Your task to perform on an android device: empty trash in the gmail app Image 0: 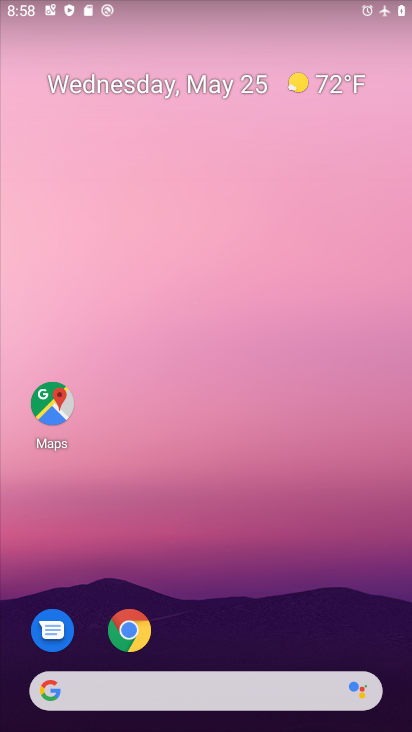
Step 0: drag from (194, 625) to (216, 170)
Your task to perform on an android device: empty trash in the gmail app Image 1: 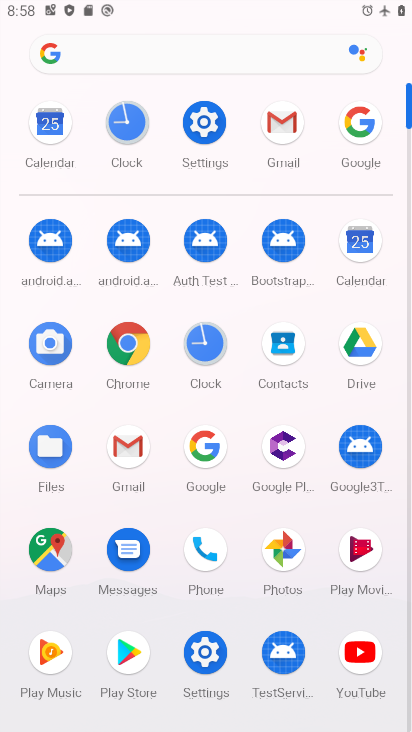
Step 1: click (293, 125)
Your task to perform on an android device: empty trash in the gmail app Image 2: 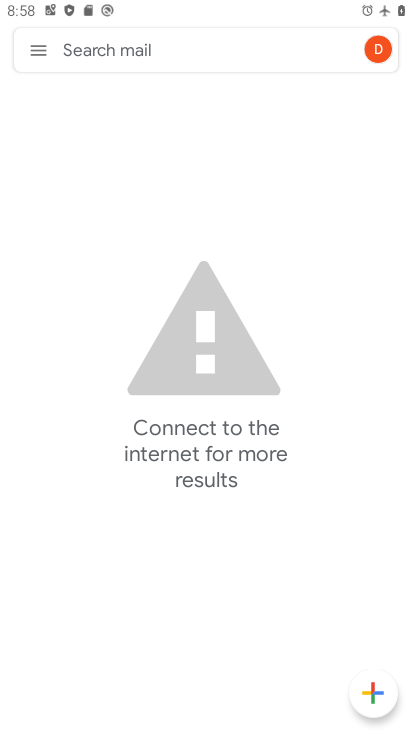
Step 2: click (39, 49)
Your task to perform on an android device: empty trash in the gmail app Image 3: 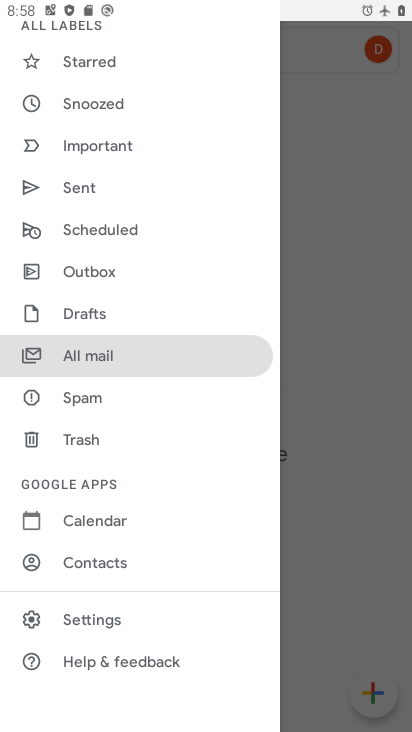
Step 3: click (83, 442)
Your task to perform on an android device: empty trash in the gmail app Image 4: 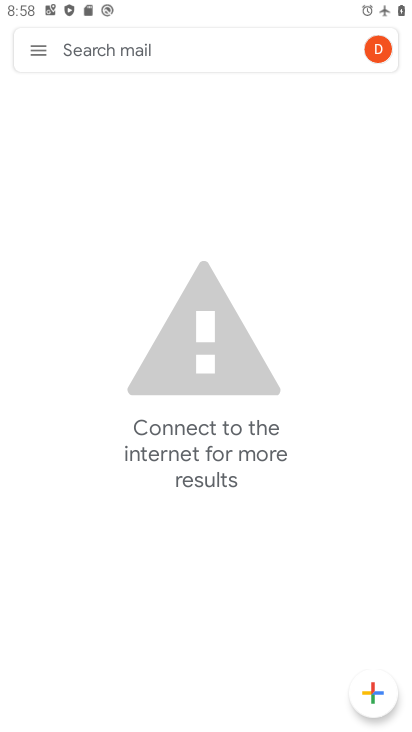
Step 4: task complete